Your task to perform on an android device: allow notifications from all sites in the chrome app Image 0: 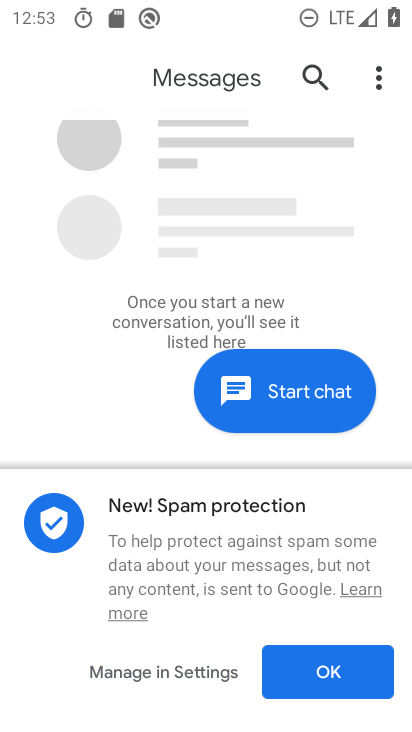
Step 0: press home button
Your task to perform on an android device: allow notifications from all sites in the chrome app Image 1: 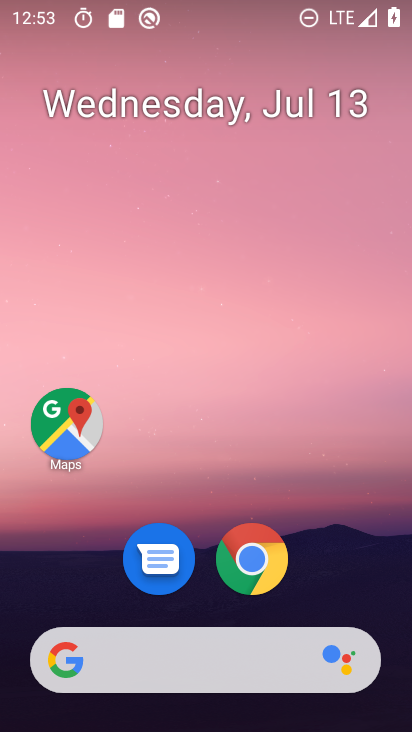
Step 1: drag from (221, 683) to (289, 22)
Your task to perform on an android device: allow notifications from all sites in the chrome app Image 2: 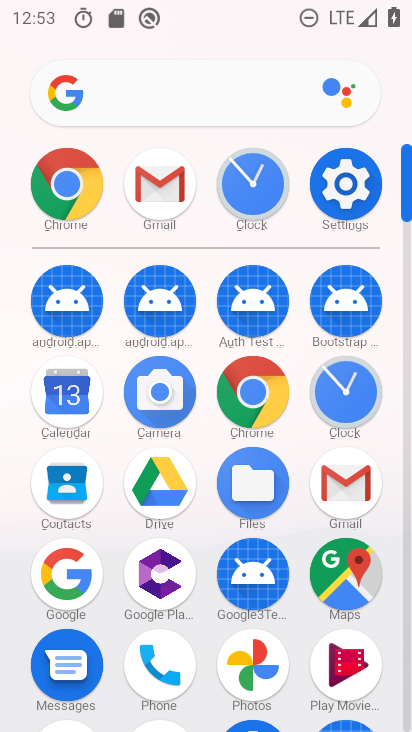
Step 2: drag from (227, 499) to (287, 341)
Your task to perform on an android device: allow notifications from all sites in the chrome app Image 3: 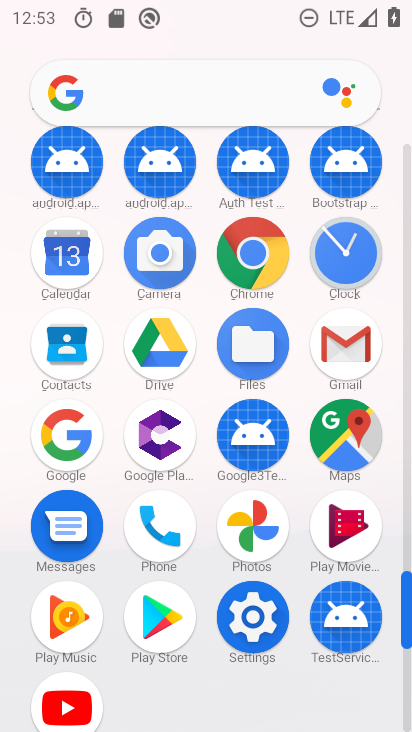
Step 3: click (254, 260)
Your task to perform on an android device: allow notifications from all sites in the chrome app Image 4: 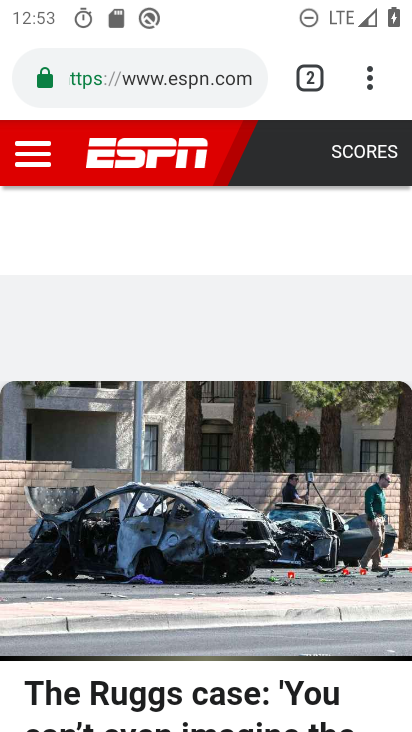
Step 4: click (374, 83)
Your task to perform on an android device: allow notifications from all sites in the chrome app Image 5: 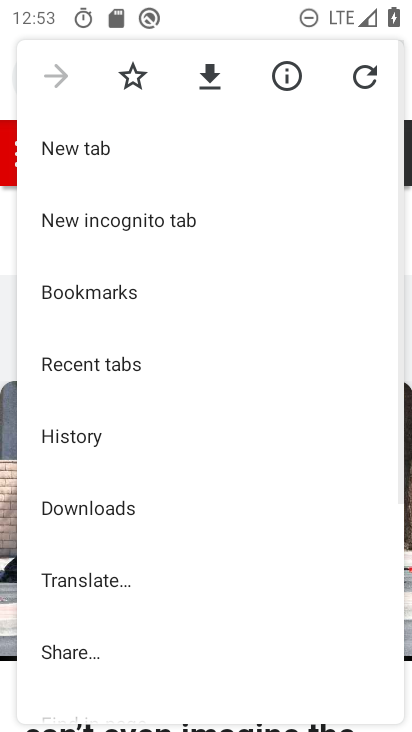
Step 5: drag from (178, 505) to (207, 255)
Your task to perform on an android device: allow notifications from all sites in the chrome app Image 6: 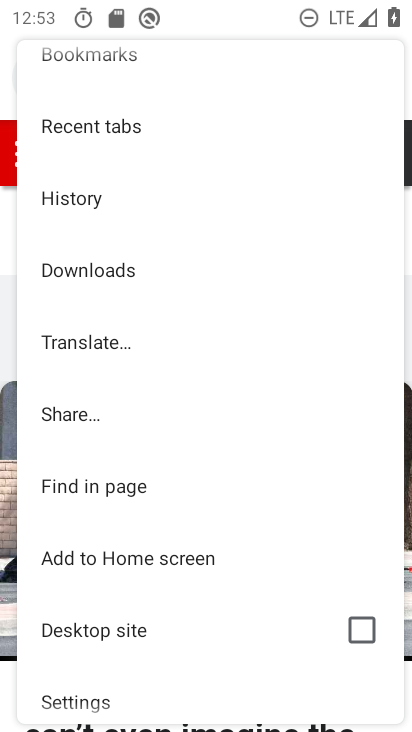
Step 6: drag from (127, 602) to (167, 367)
Your task to perform on an android device: allow notifications from all sites in the chrome app Image 7: 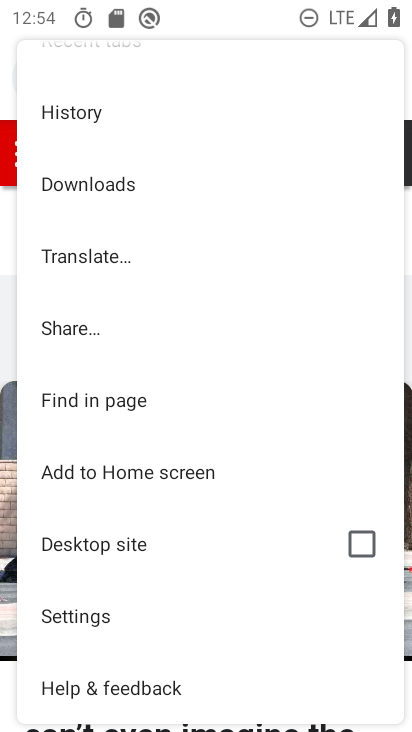
Step 7: drag from (117, 595) to (139, 359)
Your task to perform on an android device: allow notifications from all sites in the chrome app Image 8: 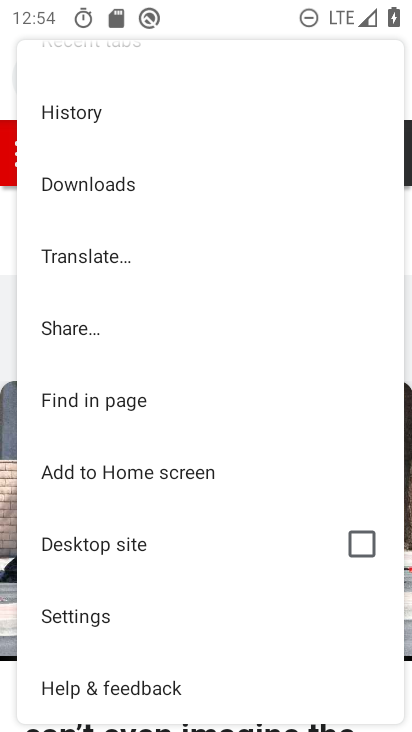
Step 8: click (83, 623)
Your task to perform on an android device: allow notifications from all sites in the chrome app Image 9: 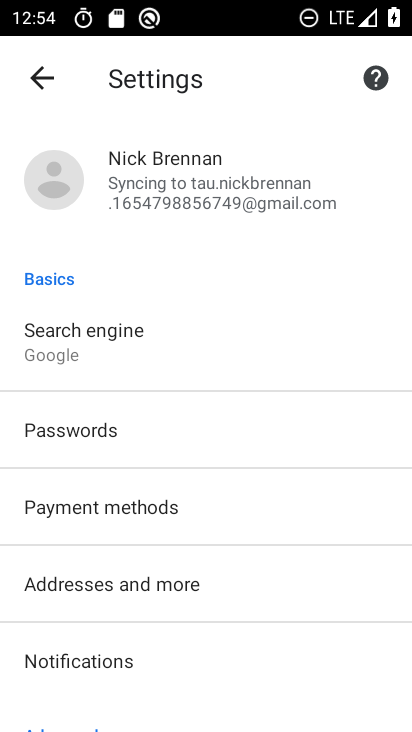
Step 9: drag from (122, 612) to (198, 377)
Your task to perform on an android device: allow notifications from all sites in the chrome app Image 10: 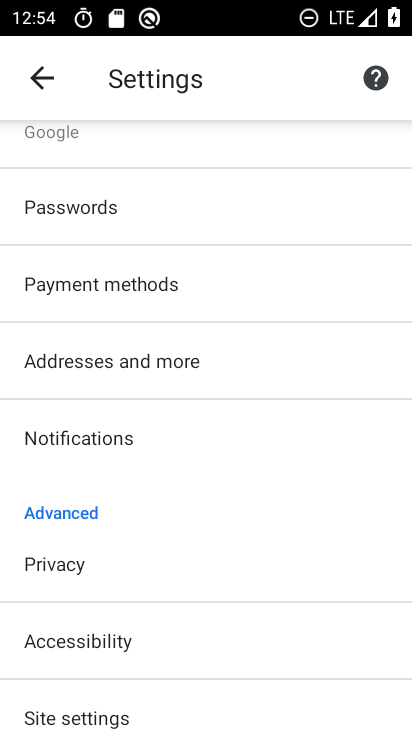
Step 10: drag from (166, 539) to (191, 415)
Your task to perform on an android device: allow notifications from all sites in the chrome app Image 11: 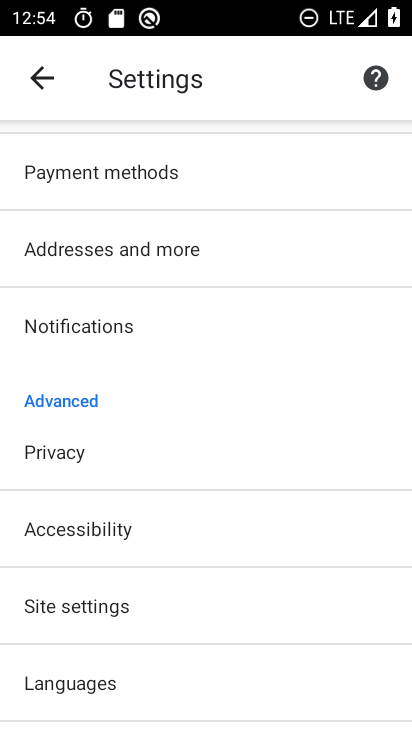
Step 11: click (114, 333)
Your task to perform on an android device: allow notifications from all sites in the chrome app Image 12: 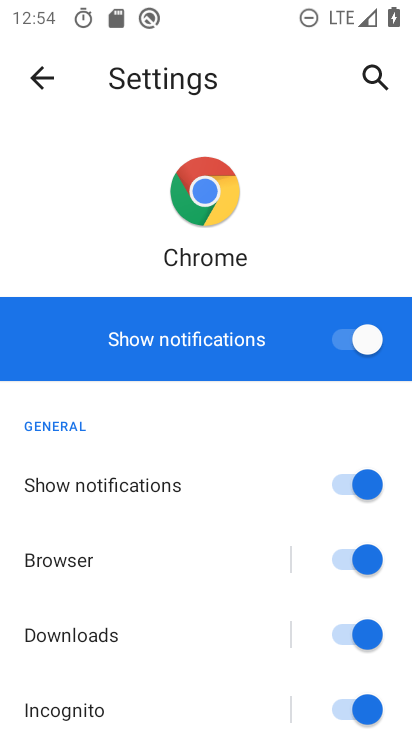
Step 12: task complete